Your task to perform on an android device: turn on priority inbox in the gmail app Image 0: 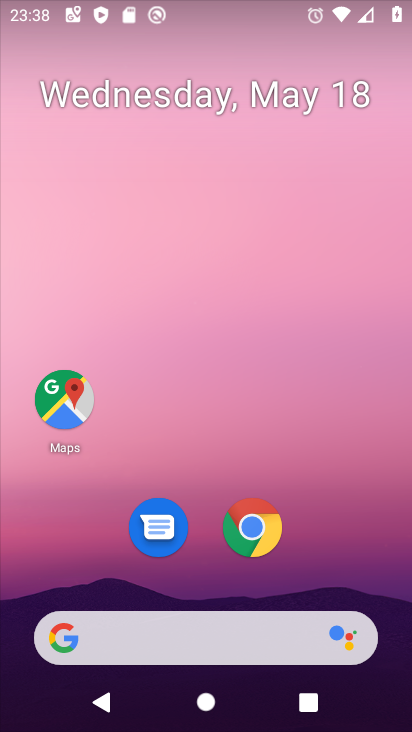
Step 0: drag from (321, 598) to (320, 2)
Your task to perform on an android device: turn on priority inbox in the gmail app Image 1: 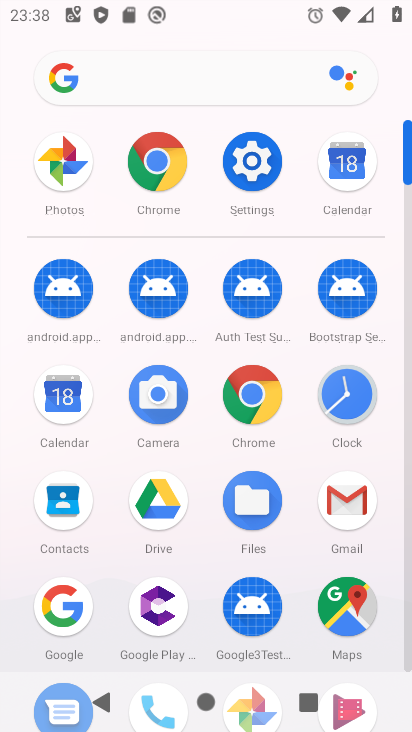
Step 1: click (340, 492)
Your task to perform on an android device: turn on priority inbox in the gmail app Image 2: 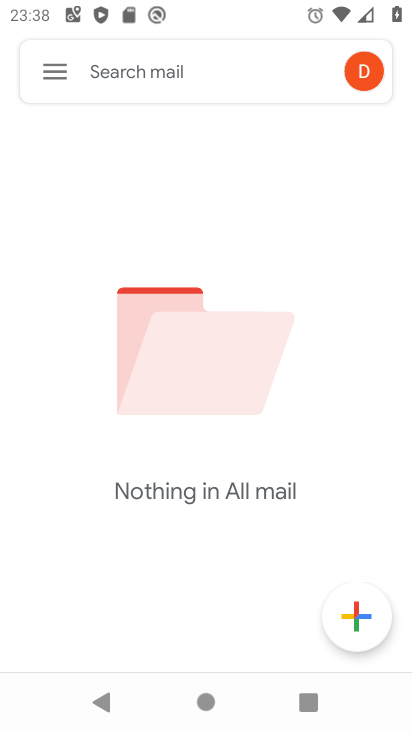
Step 2: click (58, 72)
Your task to perform on an android device: turn on priority inbox in the gmail app Image 3: 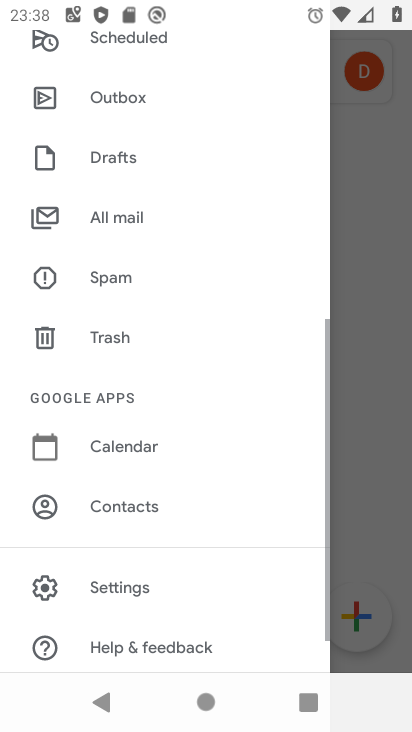
Step 3: click (96, 591)
Your task to perform on an android device: turn on priority inbox in the gmail app Image 4: 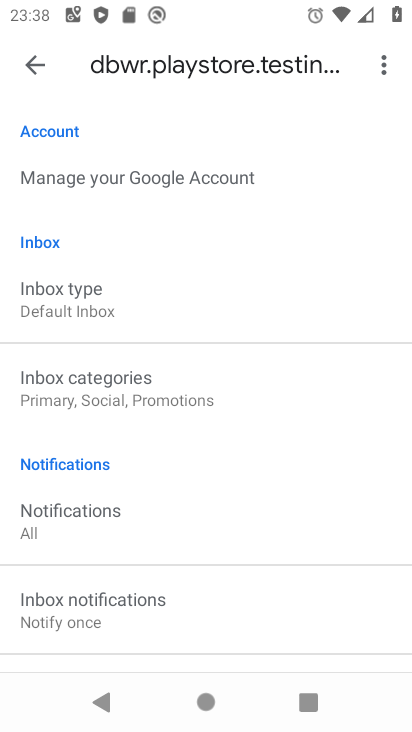
Step 4: task complete